Your task to perform on an android device: Open Maps and search for coffee Image 0: 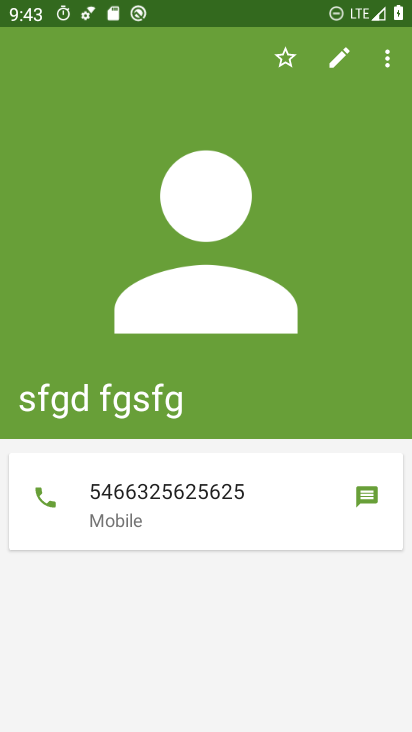
Step 0: press home button
Your task to perform on an android device: Open Maps and search for coffee Image 1: 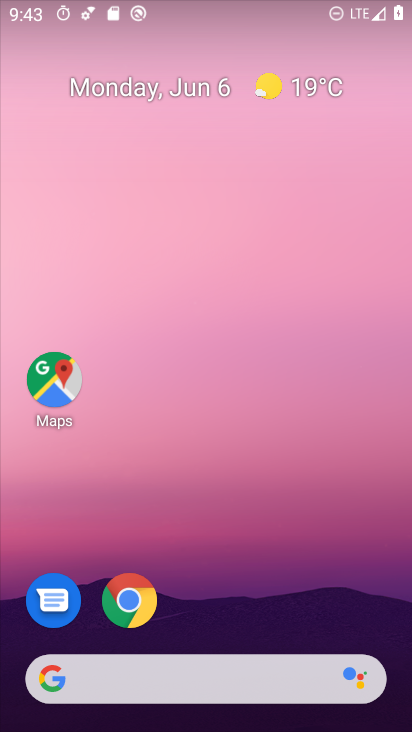
Step 1: click (55, 376)
Your task to perform on an android device: Open Maps and search for coffee Image 2: 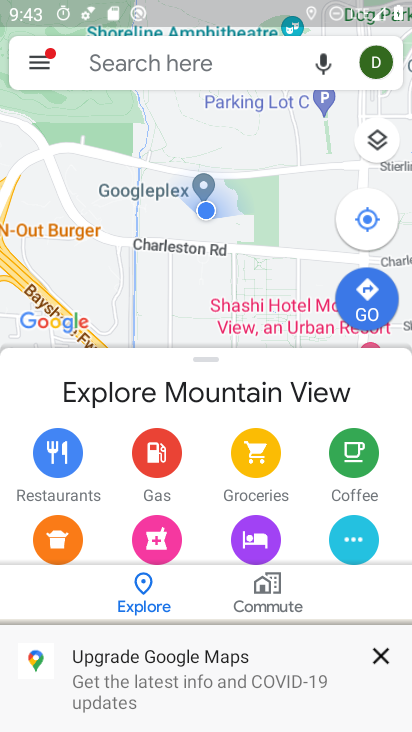
Step 2: click (181, 52)
Your task to perform on an android device: Open Maps and search for coffee Image 3: 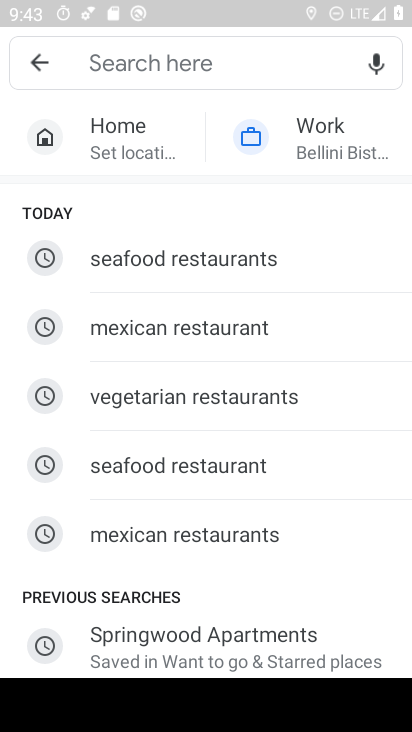
Step 3: type "coffee"
Your task to perform on an android device: Open Maps and search for coffee Image 4: 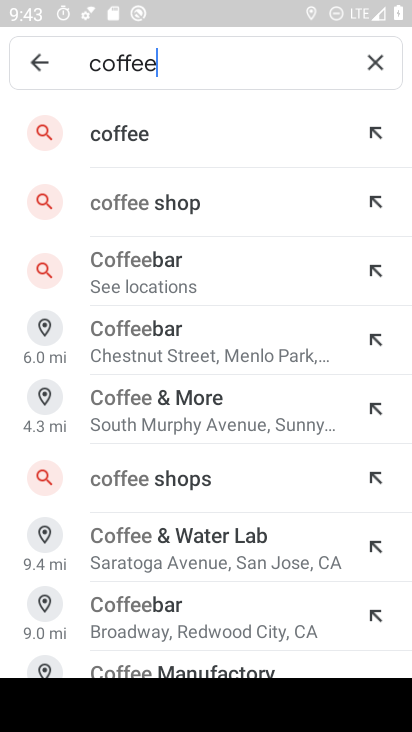
Step 4: click (199, 149)
Your task to perform on an android device: Open Maps and search for coffee Image 5: 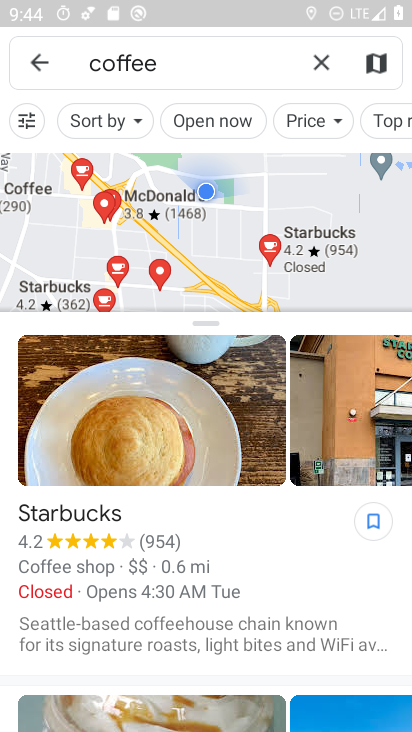
Step 5: task complete